Your task to perform on an android device: Open Google Chrome Image 0: 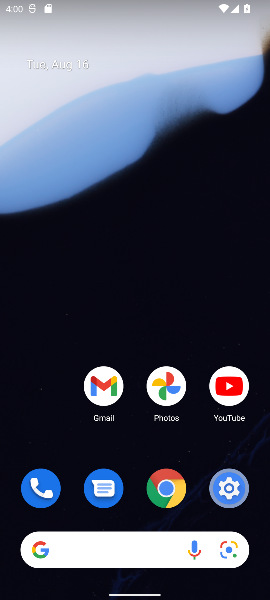
Step 0: click (157, 492)
Your task to perform on an android device: Open Google Chrome Image 1: 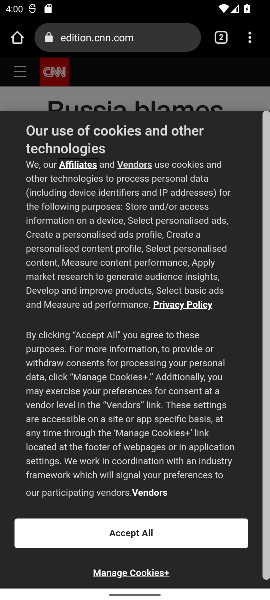
Step 1: press home button
Your task to perform on an android device: Open Google Chrome Image 2: 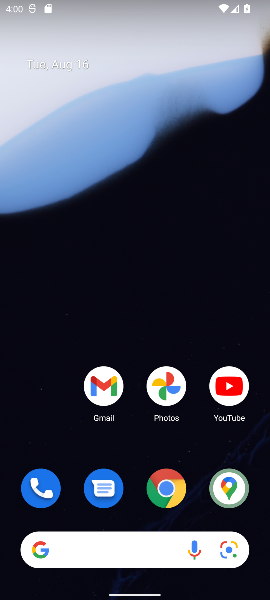
Step 2: click (171, 476)
Your task to perform on an android device: Open Google Chrome Image 3: 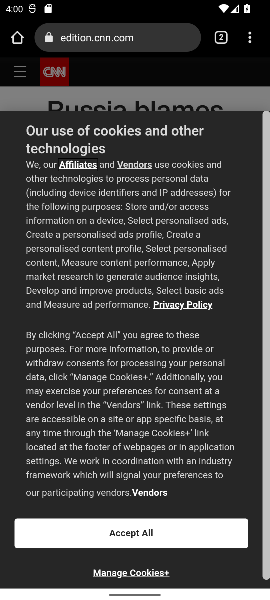
Step 3: task complete